Your task to perform on an android device: Go to Maps Image 0: 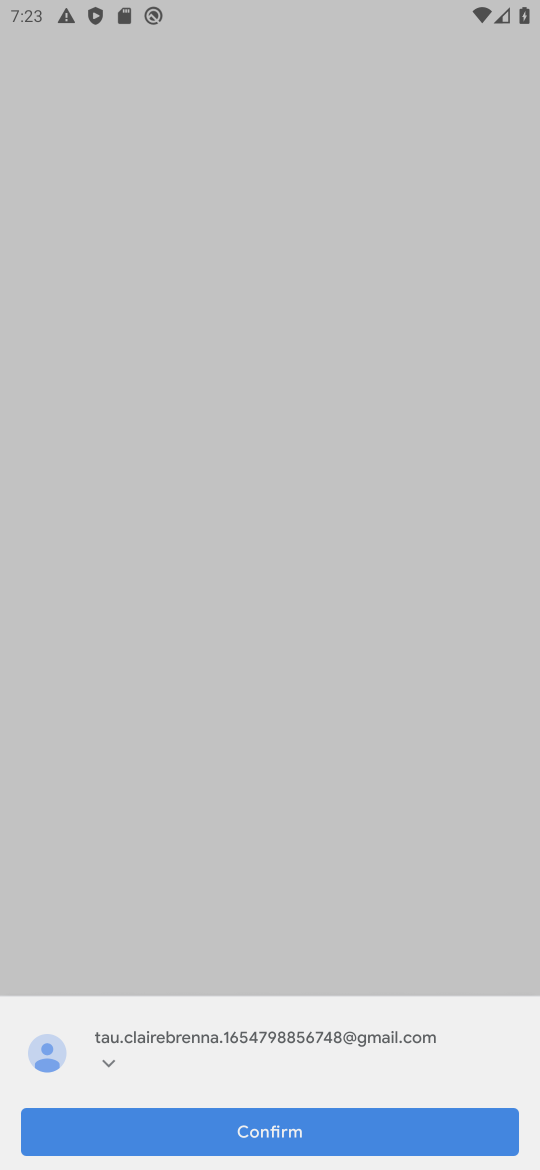
Step 0: press home button
Your task to perform on an android device: Go to Maps Image 1: 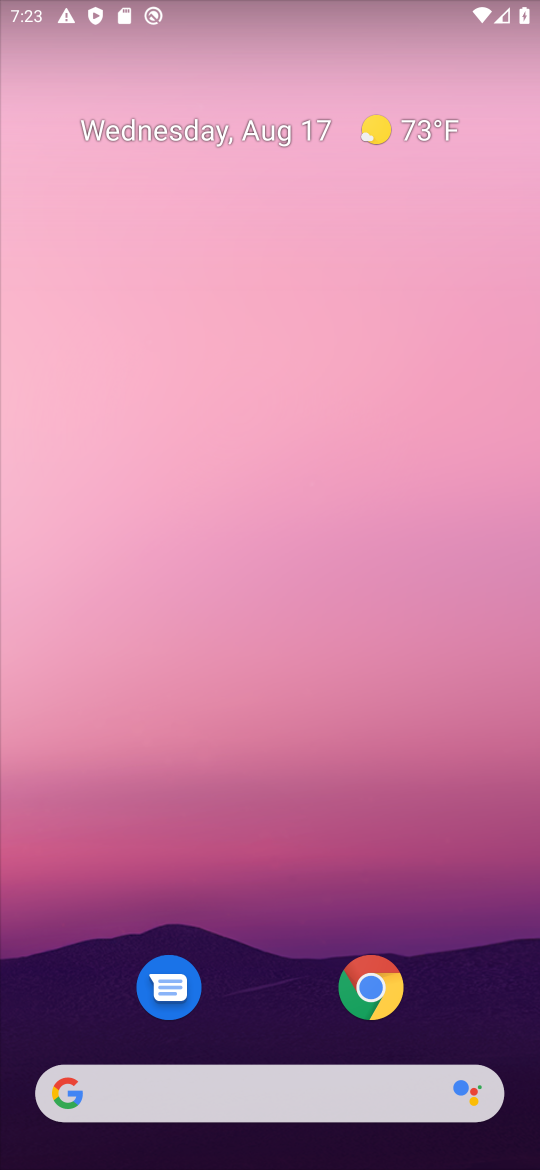
Step 1: drag from (505, 980) to (199, 2)
Your task to perform on an android device: Go to Maps Image 2: 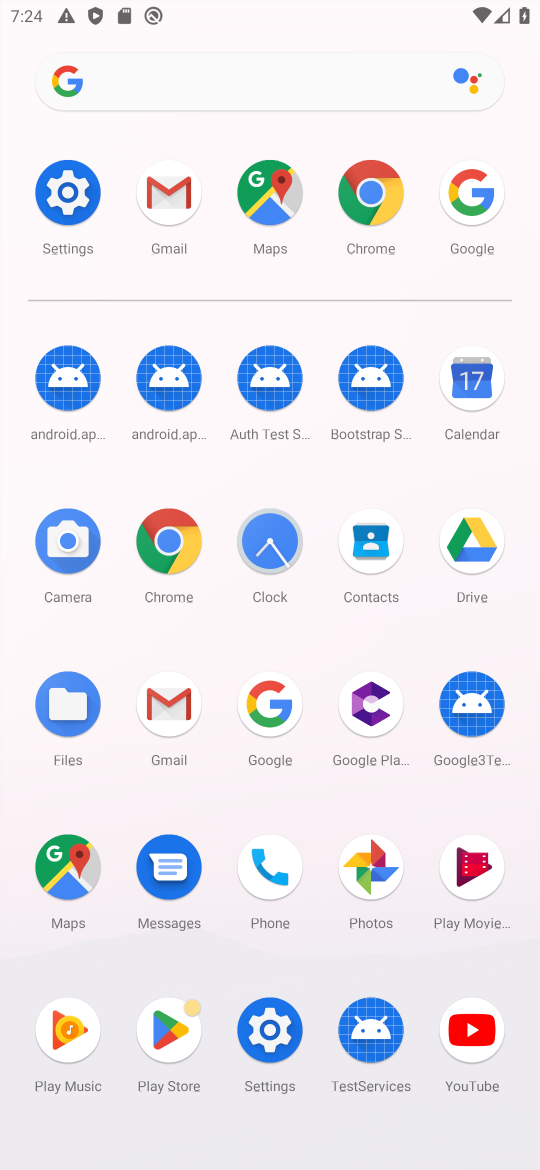
Step 2: click (63, 873)
Your task to perform on an android device: Go to Maps Image 3: 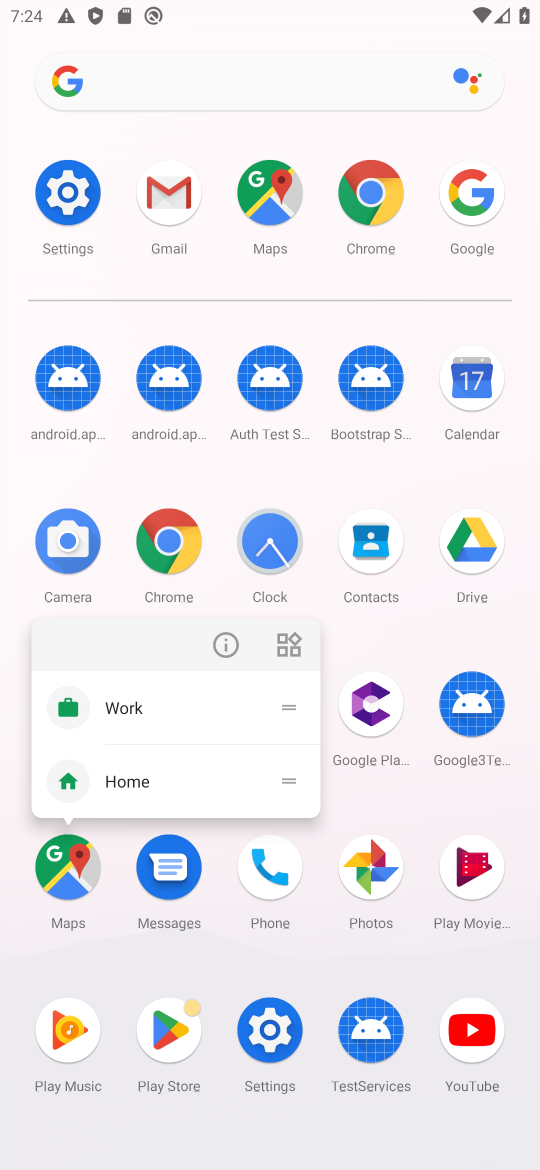
Step 3: click (63, 873)
Your task to perform on an android device: Go to Maps Image 4: 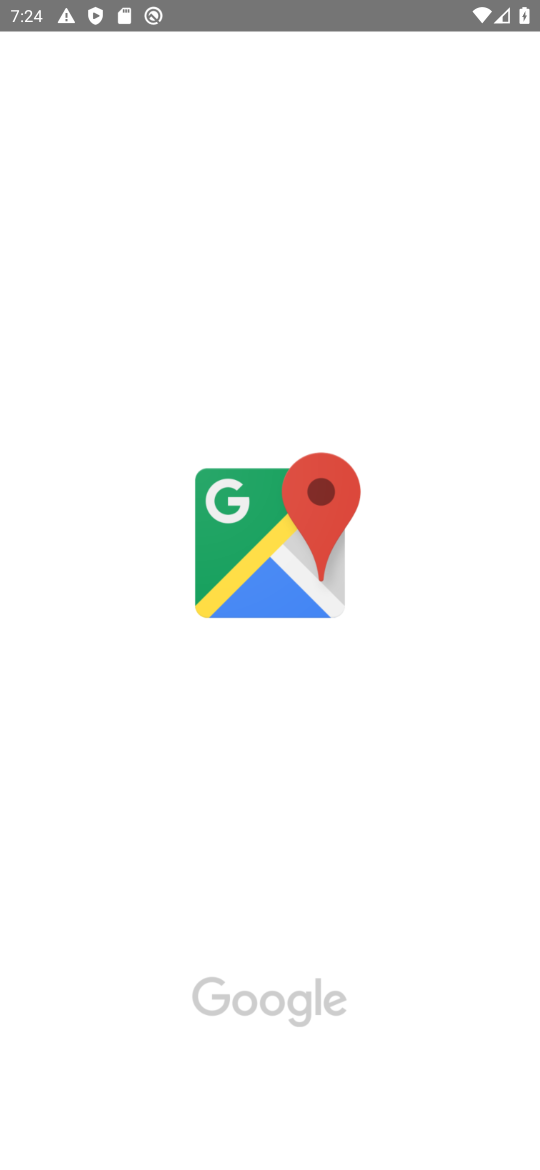
Step 4: task complete